Your task to perform on an android device: What's on my calendar today? Image 0: 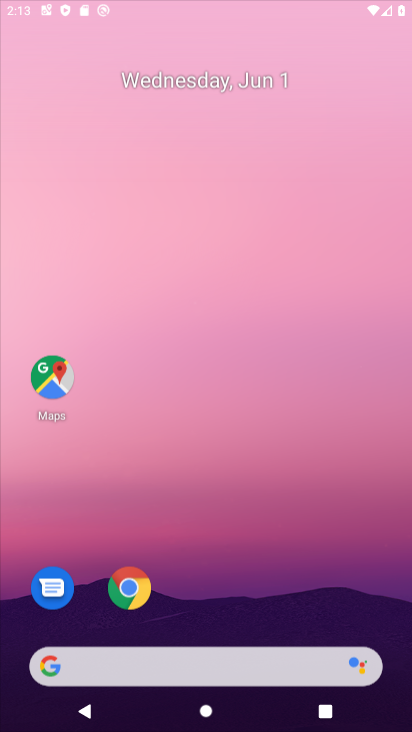
Step 0: click (323, 69)
Your task to perform on an android device: What's on my calendar today? Image 1: 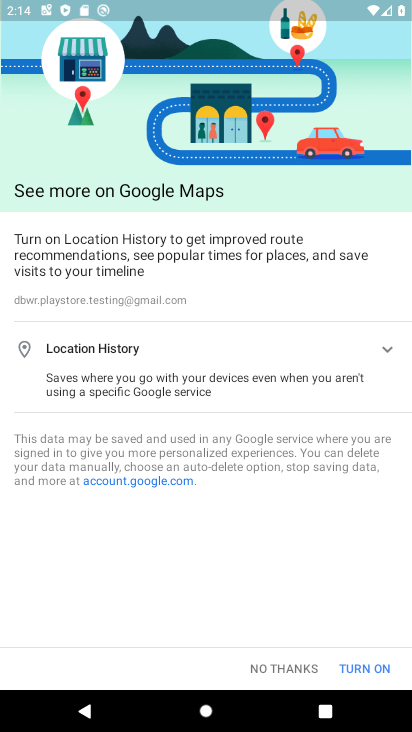
Step 1: press back button
Your task to perform on an android device: What's on my calendar today? Image 2: 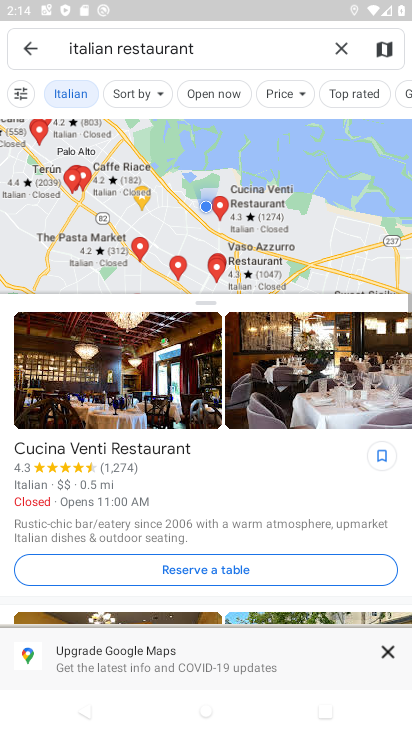
Step 2: press back button
Your task to perform on an android device: What's on my calendar today? Image 3: 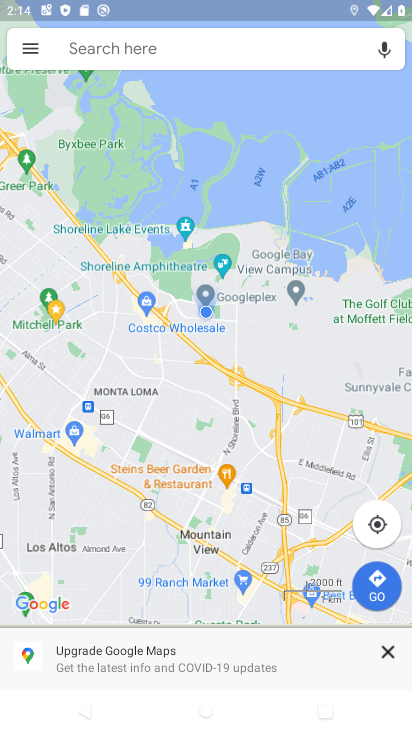
Step 3: press back button
Your task to perform on an android device: What's on my calendar today? Image 4: 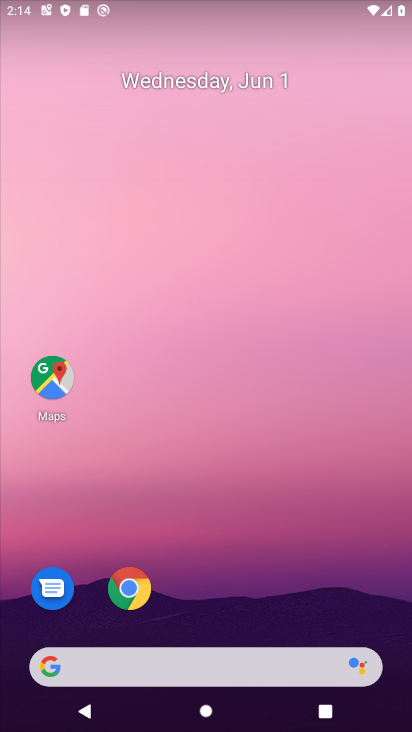
Step 4: drag from (295, 545) to (356, 31)
Your task to perform on an android device: What's on my calendar today? Image 5: 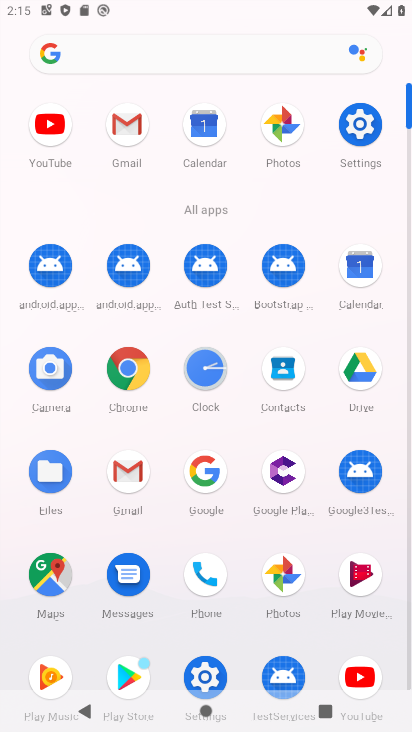
Step 5: click (350, 270)
Your task to perform on an android device: What's on my calendar today? Image 6: 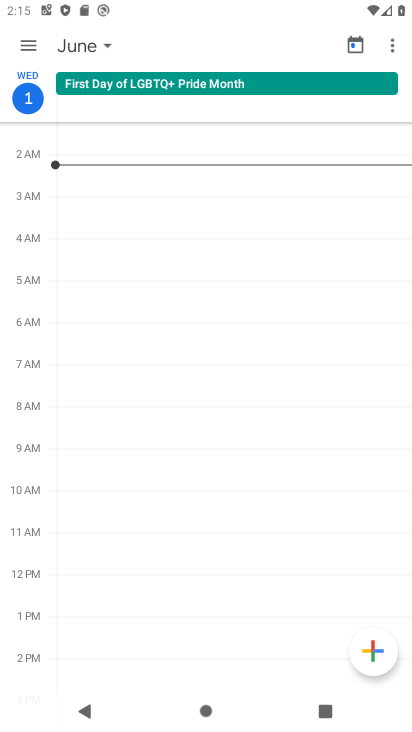
Step 6: task complete